Your task to perform on an android device: Go to privacy settings Image 0: 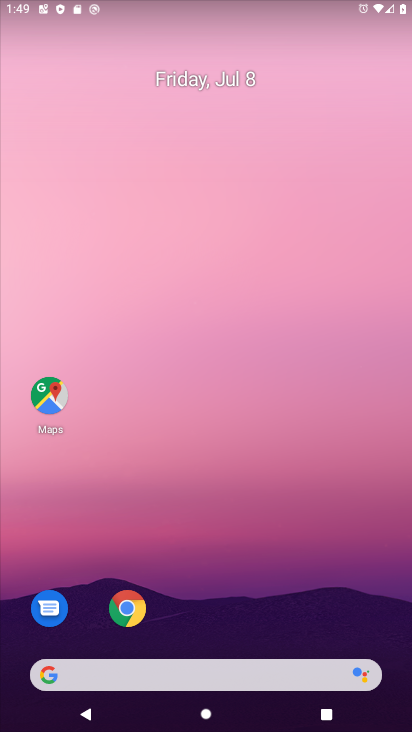
Step 0: drag from (317, 9) to (243, 635)
Your task to perform on an android device: Go to privacy settings Image 1: 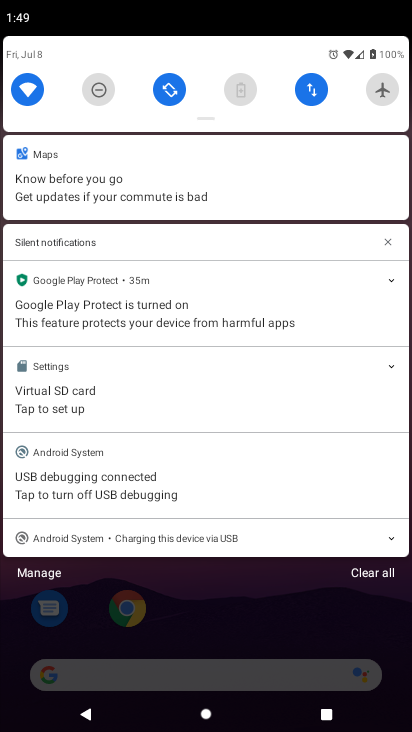
Step 1: drag from (227, 59) to (197, 582)
Your task to perform on an android device: Go to privacy settings Image 2: 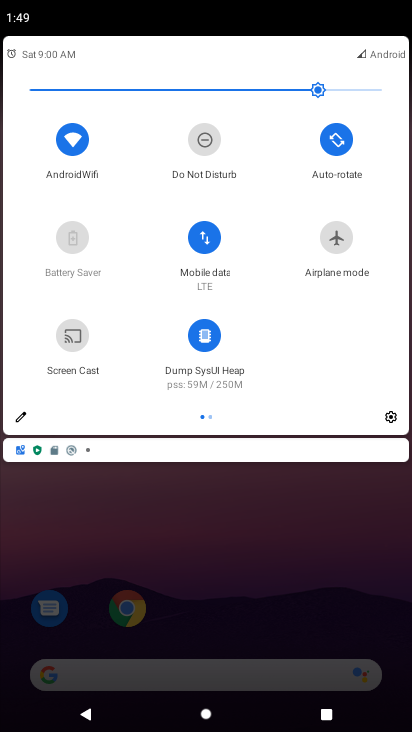
Step 2: click (390, 407)
Your task to perform on an android device: Go to privacy settings Image 3: 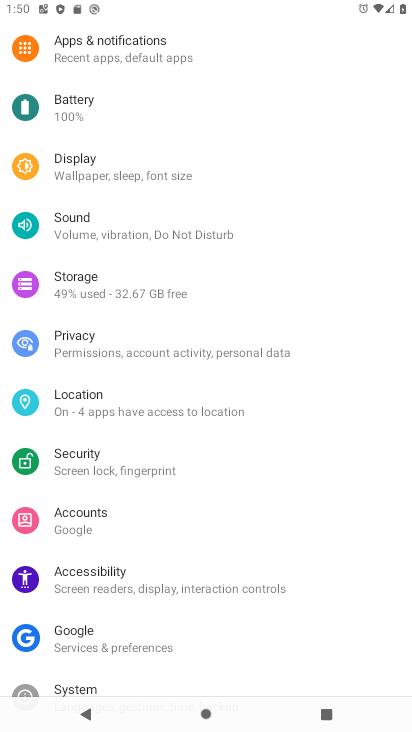
Step 3: click (173, 352)
Your task to perform on an android device: Go to privacy settings Image 4: 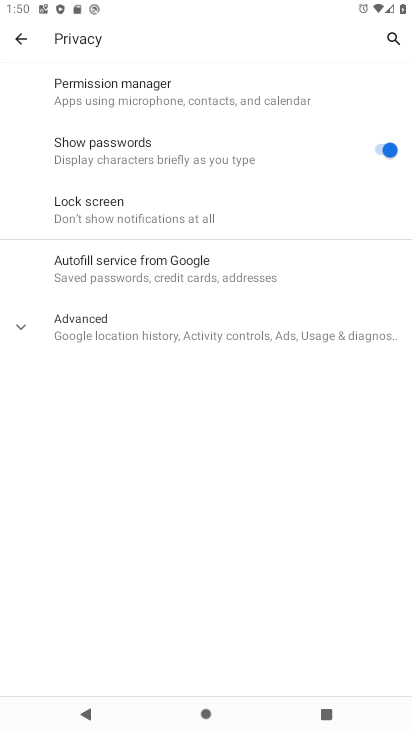
Step 4: task complete